Your task to perform on an android device: Open Google Chrome and open the bookmarks view Image 0: 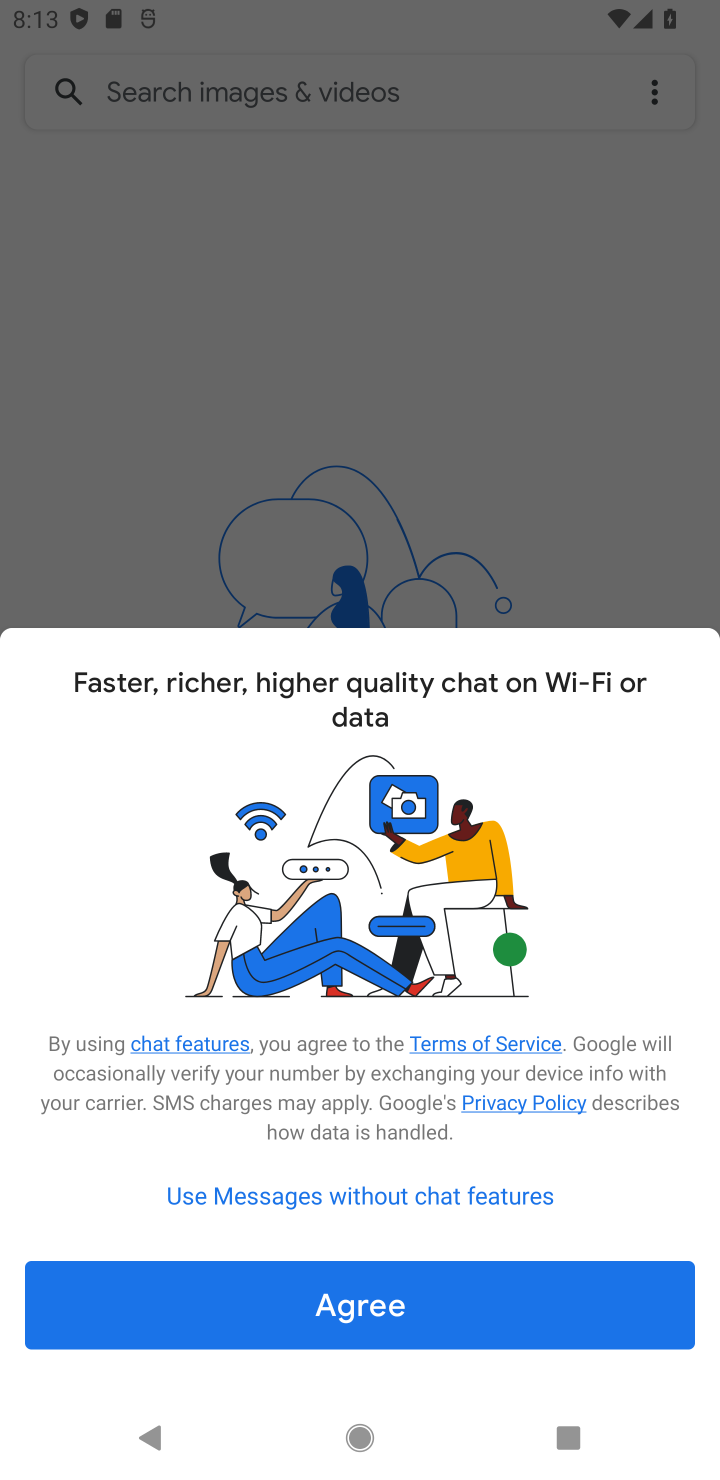
Step 0: task complete